Your task to perform on an android device: Show me productivity apps on the Play Store Image 0: 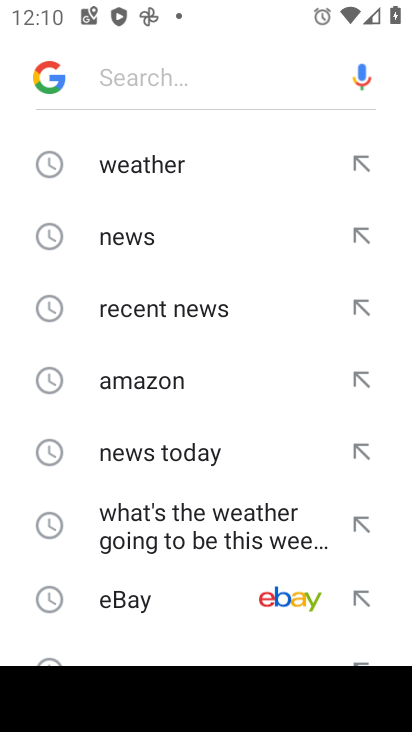
Step 0: press home button
Your task to perform on an android device: Show me productivity apps on the Play Store Image 1: 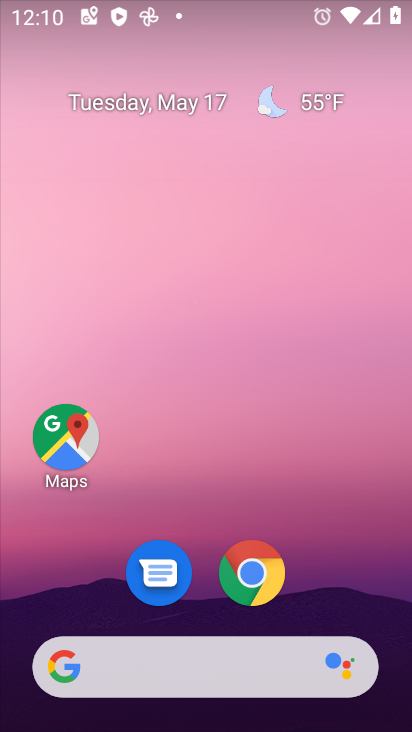
Step 1: drag from (378, 579) to (286, 185)
Your task to perform on an android device: Show me productivity apps on the Play Store Image 2: 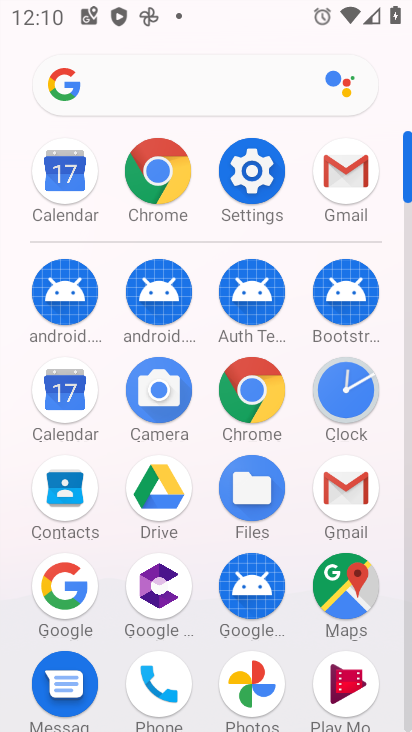
Step 2: drag from (204, 646) to (156, 366)
Your task to perform on an android device: Show me productivity apps on the Play Store Image 3: 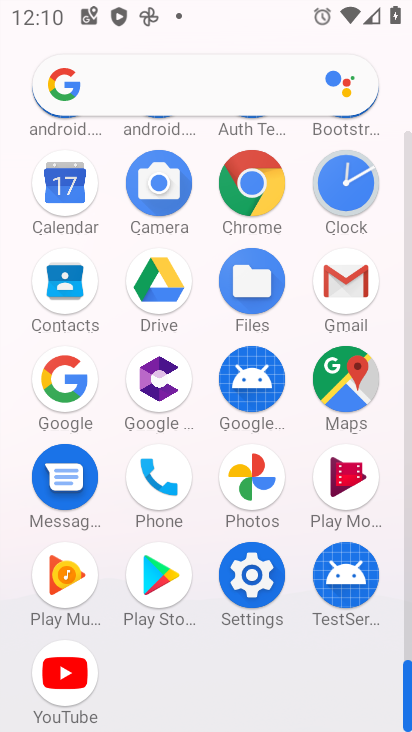
Step 3: click (172, 569)
Your task to perform on an android device: Show me productivity apps on the Play Store Image 4: 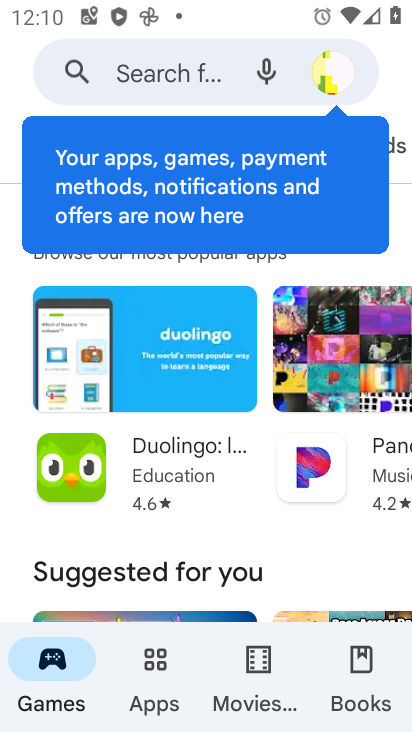
Step 4: click (167, 665)
Your task to perform on an android device: Show me productivity apps on the Play Store Image 5: 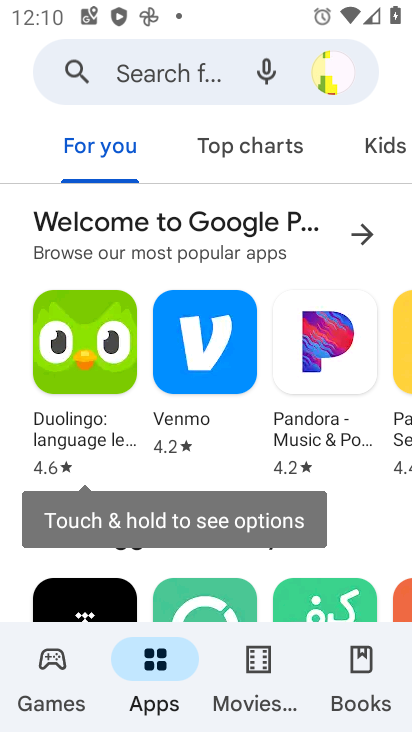
Step 5: drag from (352, 145) to (176, 136)
Your task to perform on an android device: Show me productivity apps on the Play Store Image 6: 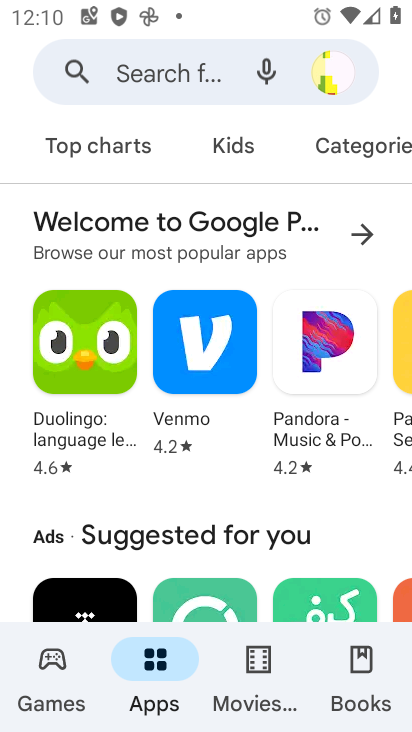
Step 6: click (353, 149)
Your task to perform on an android device: Show me productivity apps on the Play Store Image 7: 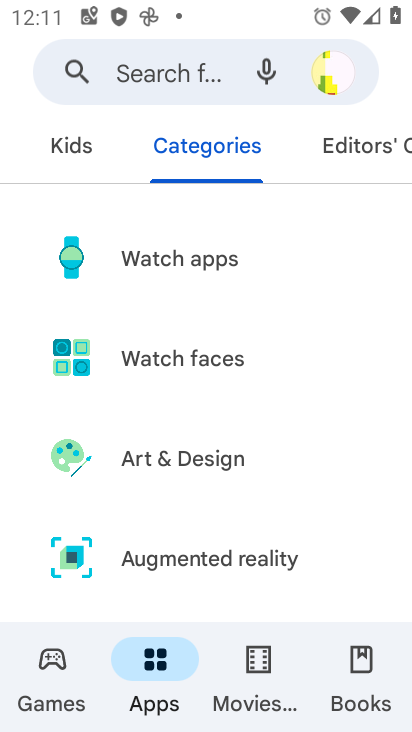
Step 7: drag from (239, 560) to (183, 358)
Your task to perform on an android device: Show me productivity apps on the Play Store Image 8: 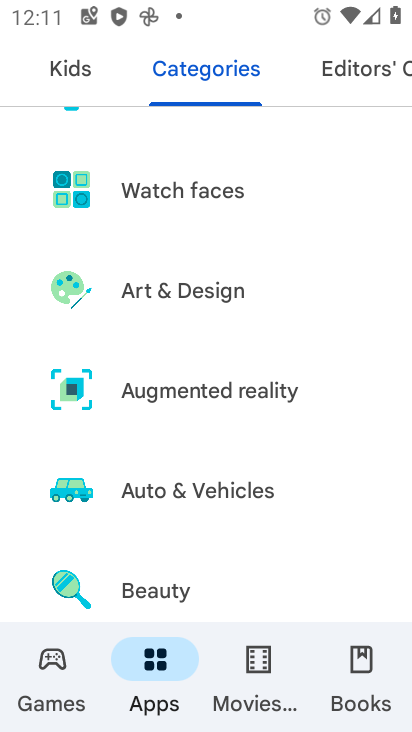
Step 8: drag from (213, 516) to (175, 157)
Your task to perform on an android device: Show me productivity apps on the Play Store Image 9: 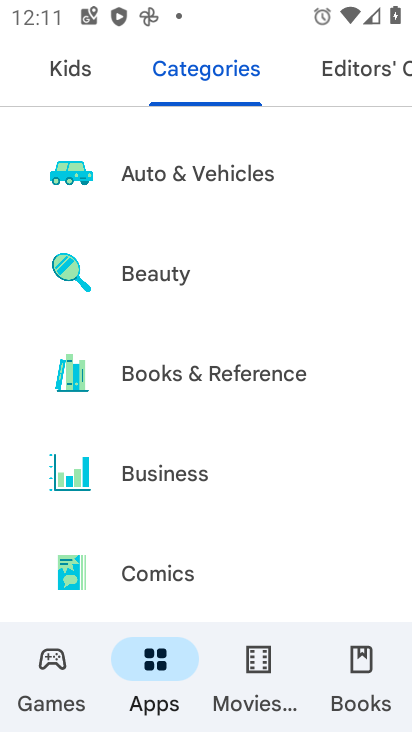
Step 9: drag from (244, 565) to (194, 185)
Your task to perform on an android device: Show me productivity apps on the Play Store Image 10: 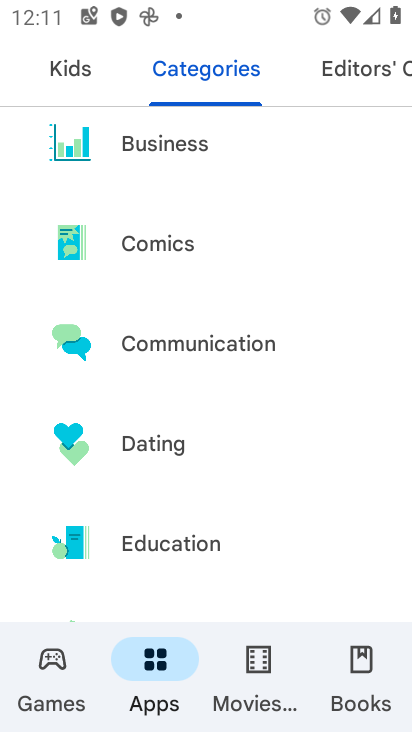
Step 10: drag from (240, 498) to (205, 150)
Your task to perform on an android device: Show me productivity apps on the Play Store Image 11: 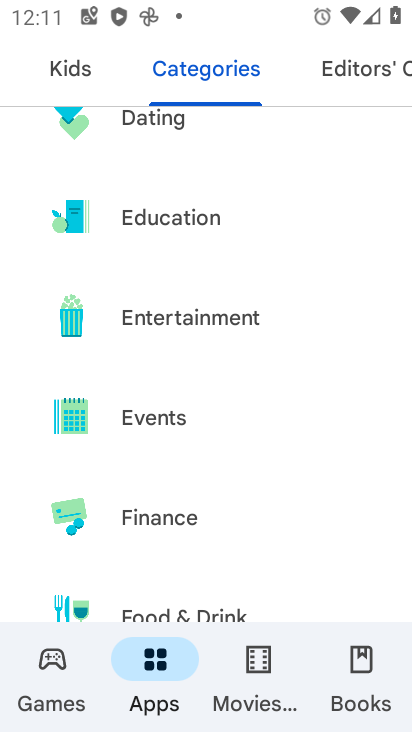
Step 11: drag from (253, 480) to (189, 131)
Your task to perform on an android device: Show me productivity apps on the Play Store Image 12: 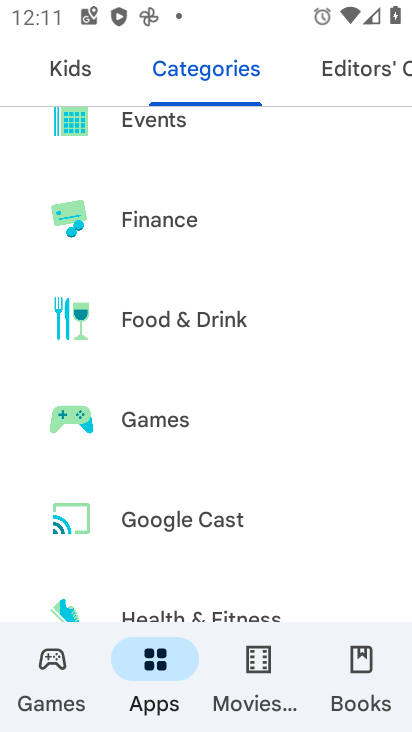
Step 12: drag from (213, 591) to (185, 145)
Your task to perform on an android device: Show me productivity apps on the Play Store Image 13: 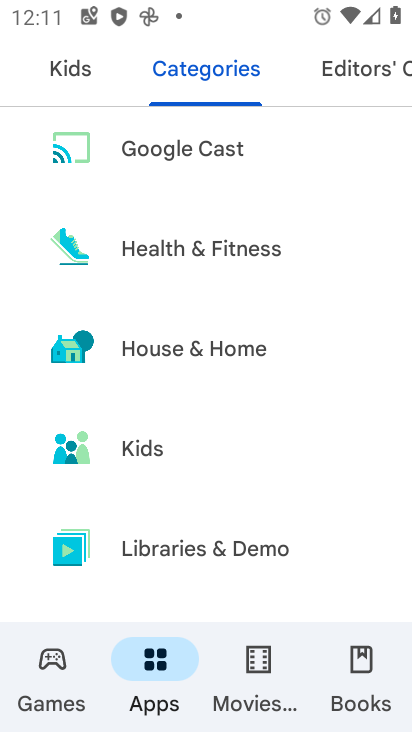
Step 13: drag from (261, 482) to (207, 74)
Your task to perform on an android device: Show me productivity apps on the Play Store Image 14: 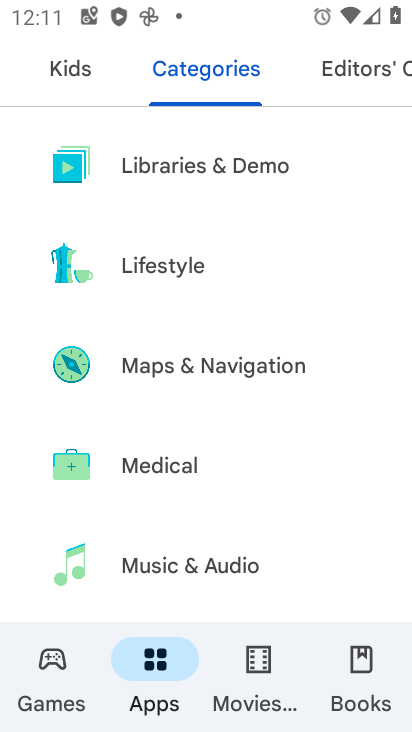
Step 14: drag from (227, 455) to (224, 122)
Your task to perform on an android device: Show me productivity apps on the Play Store Image 15: 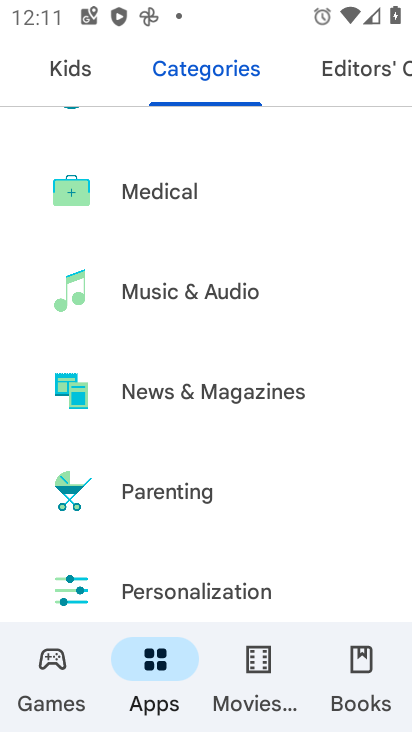
Step 15: drag from (219, 559) to (220, 176)
Your task to perform on an android device: Show me productivity apps on the Play Store Image 16: 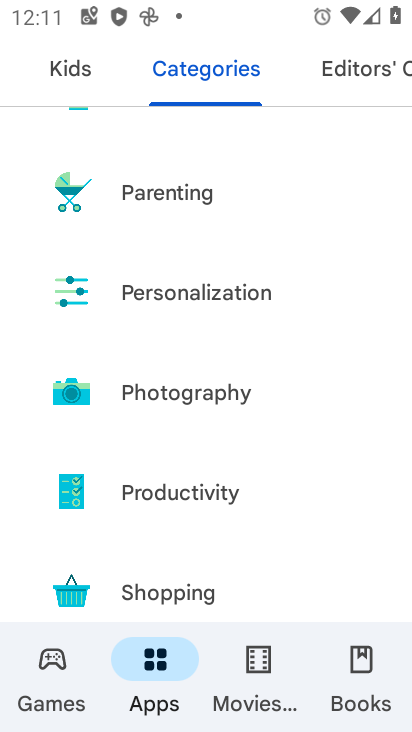
Step 16: click (223, 488)
Your task to perform on an android device: Show me productivity apps on the Play Store Image 17: 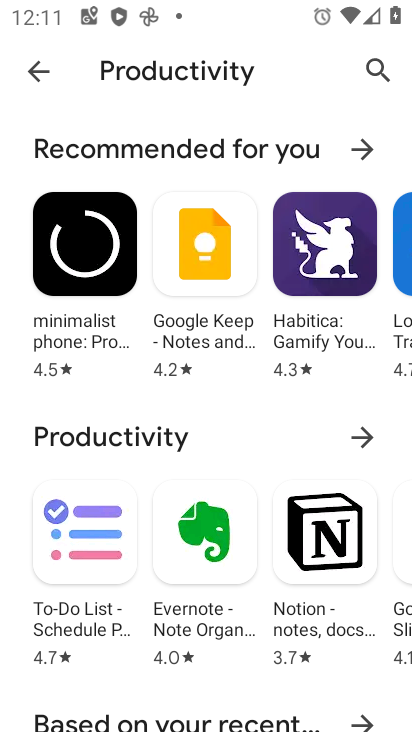
Step 17: task complete